Your task to perform on an android device: Go to ESPN.com Image 0: 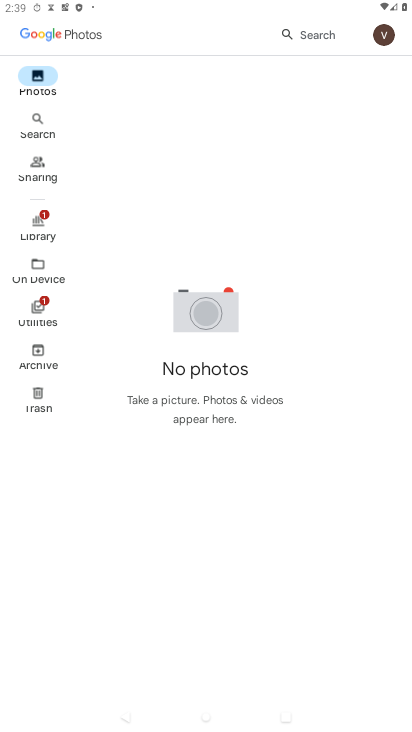
Step 0: press home button
Your task to perform on an android device: Go to ESPN.com Image 1: 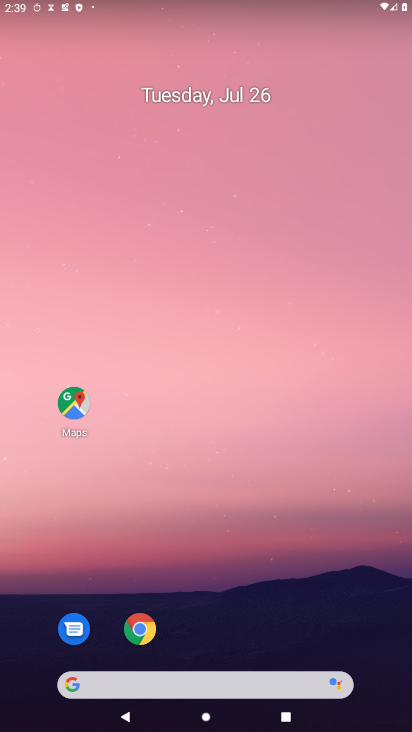
Step 1: drag from (222, 686) to (384, 9)
Your task to perform on an android device: Go to ESPN.com Image 2: 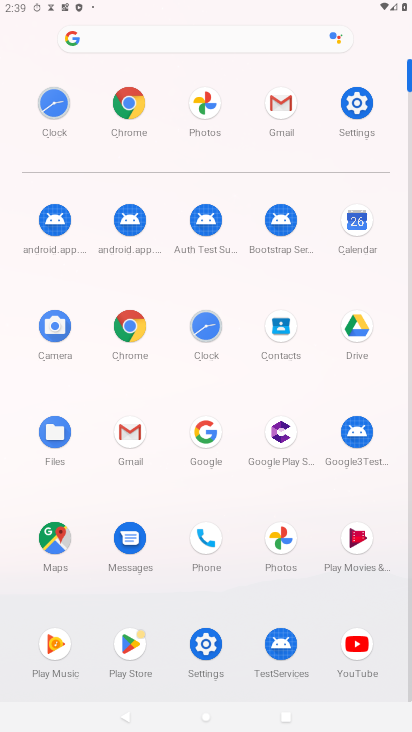
Step 2: click (122, 326)
Your task to perform on an android device: Go to ESPN.com Image 3: 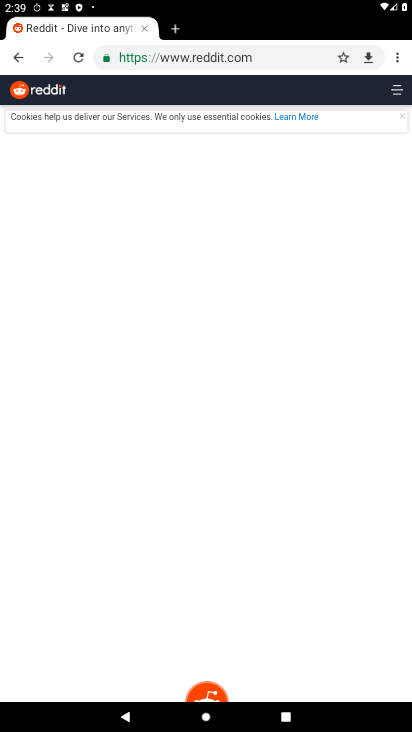
Step 3: click (181, 50)
Your task to perform on an android device: Go to ESPN.com Image 4: 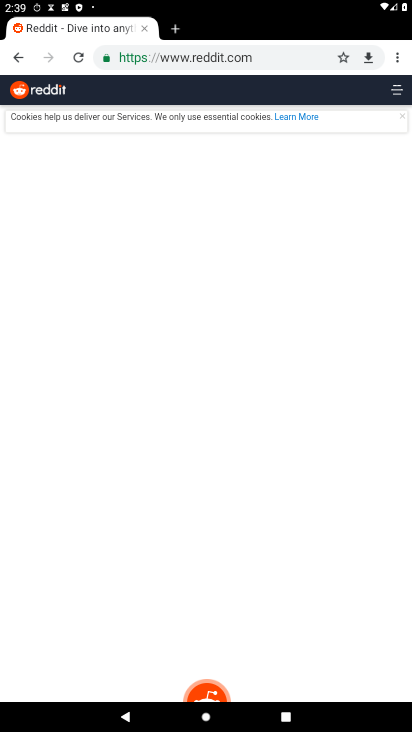
Step 4: click (181, 50)
Your task to perform on an android device: Go to ESPN.com Image 5: 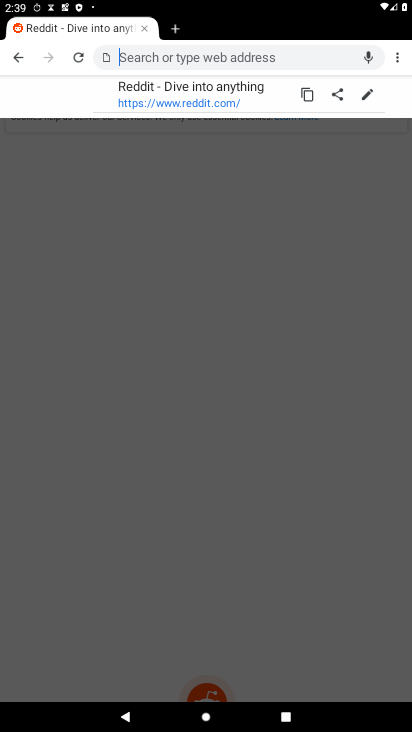
Step 5: type "espn.com"
Your task to perform on an android device: Go to ESPN.com Image 6: 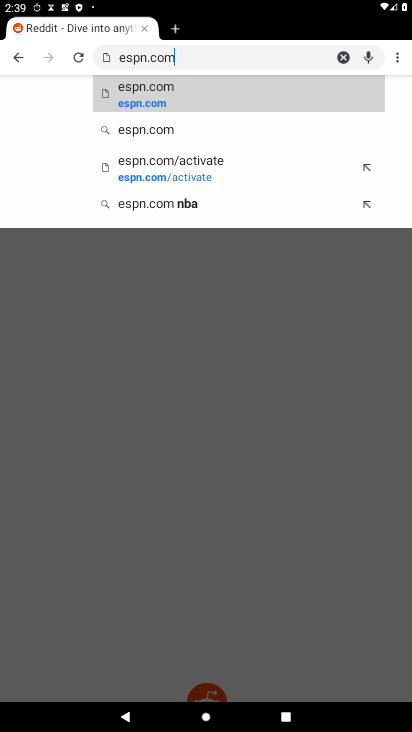
Step 6: click (185, 103)
Your task to perform on an android device: Go to ESPN.com Image 7: 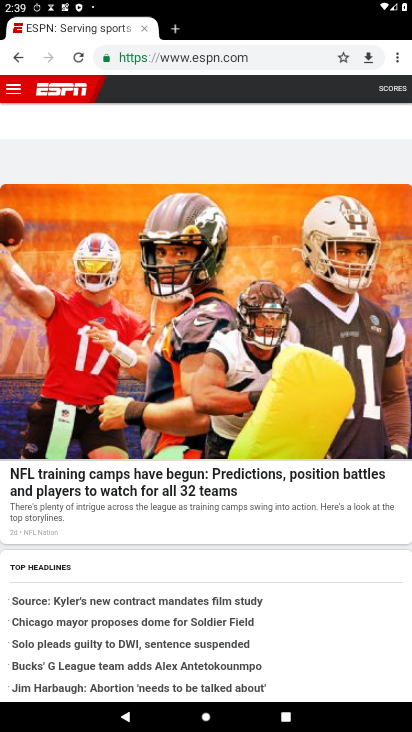
Step 7: task complete